Your task to perform on an android device: toggle airplane mode Image 0: 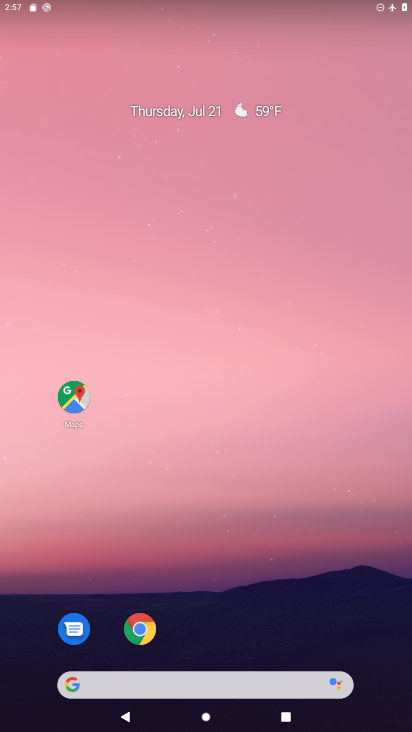
Step 0: drag from (233, 727) to (247, 97)
Your task to perform on an android device: toggle airplane mode Image 1: 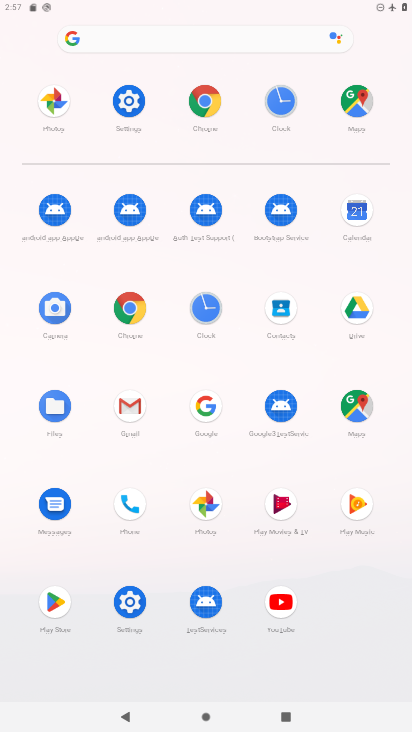
Step 1: click (125, 99)
Your task to perform on an android device: toggle airplane mode Image 2: 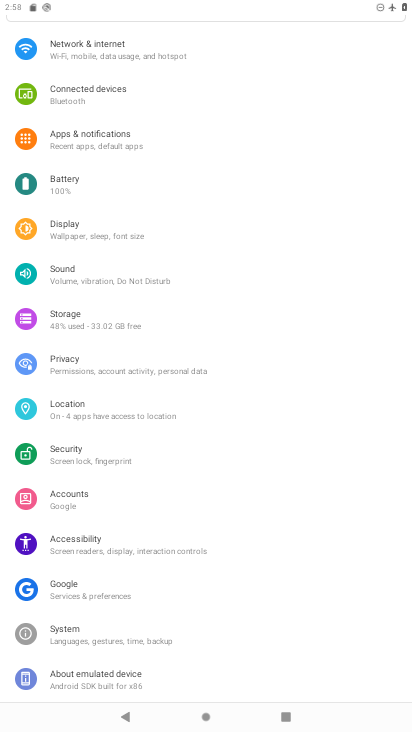
Step 2: drag from (90, 51) to (106, 430)
Your task to perform on an android device: toggle airplane mode Image 3: 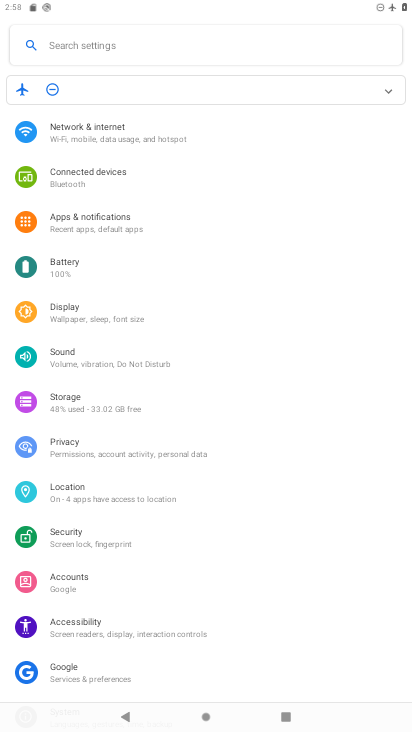
Step 3: click (91, 130)
Your task to perform on an android device: toggle airplane mode Image 4: 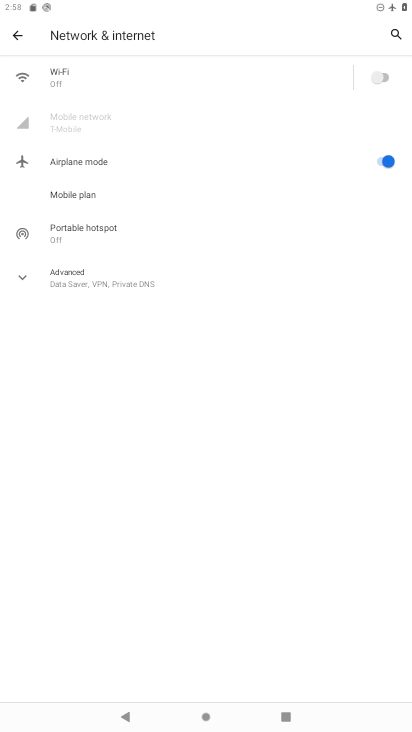
Step 4: click (382, 158)
Your task to perform on an android device: toggle airplane mode Image 5: 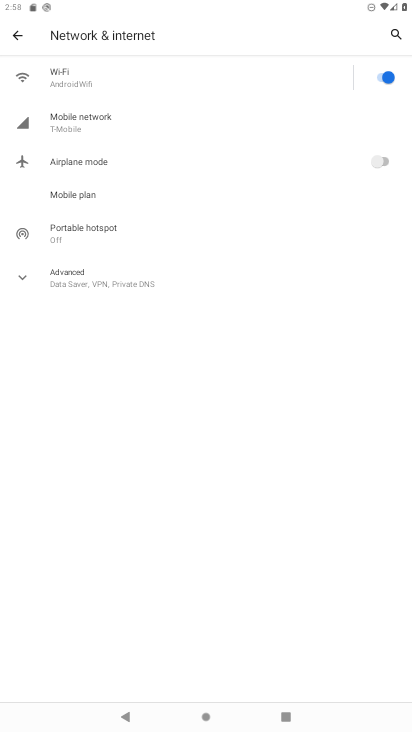
Step 5: task complete